Your task to perform on an android device: search for starred emails in the gmail app Image 0: 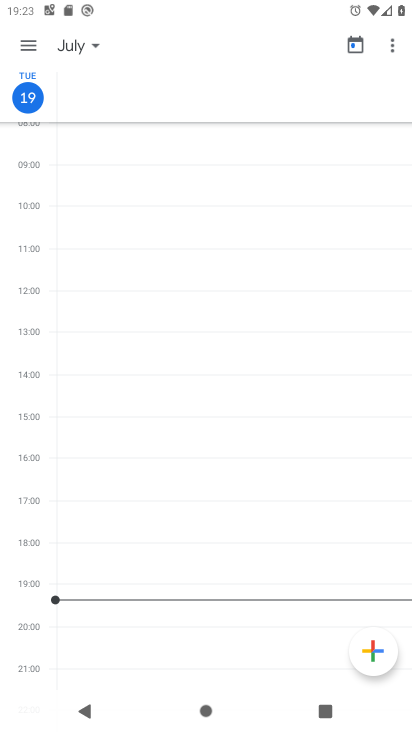
Step 0: press home button
Your task to perform on an android device: search for starred emails in the gmail app Image 1: 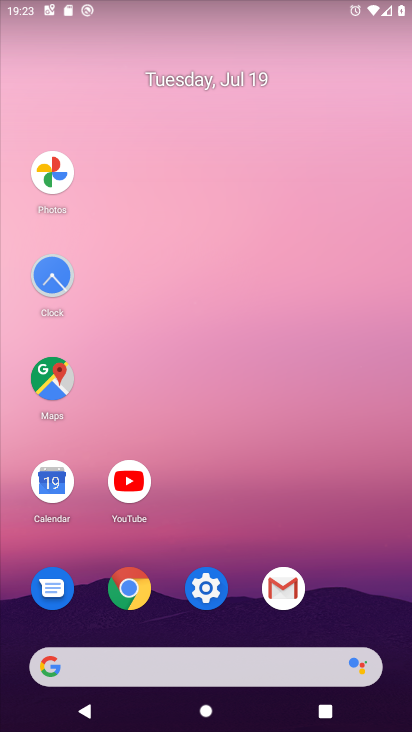
Step 1: click (277, 589)
Your task to perform on an android device: search for starred emails in the gmail app Image 2: 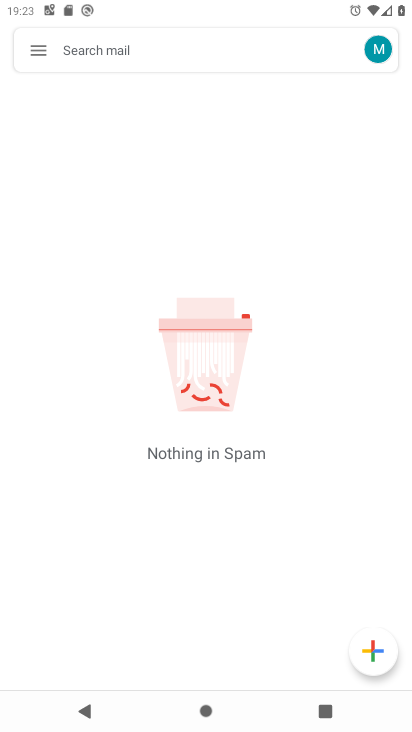
Step 2: click (32, 45)
Your task to perform on an android device: search for starred emails in the gmail app Image 3: 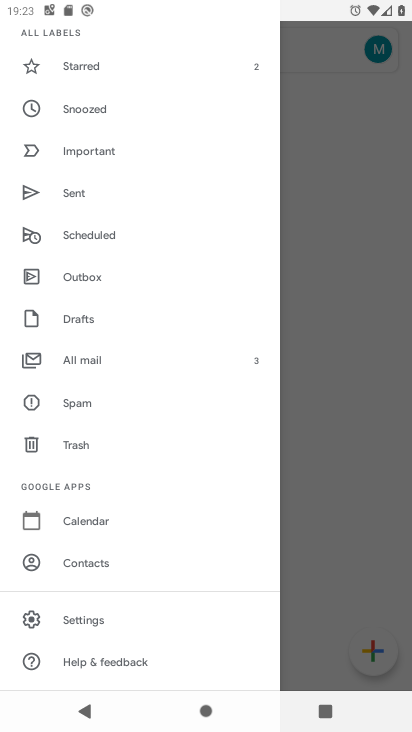
Step 3: click (81, 63)
Your task to perform on an android device: search for starred emails in the gmail app Image 4: 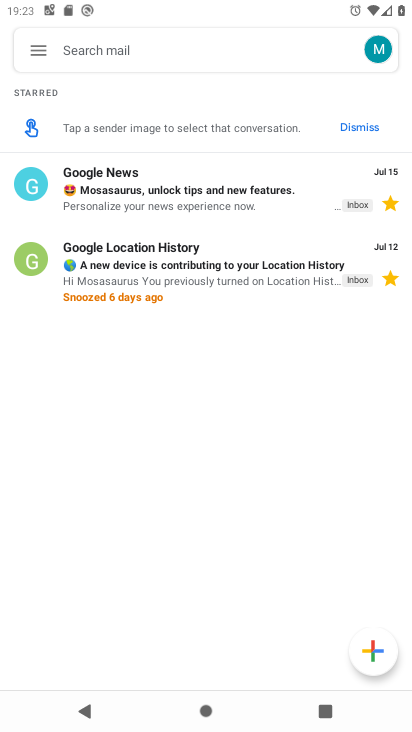
Step 4: task complete